Your task to perform on an android device: see sites visited before in the chrome app Image 0: 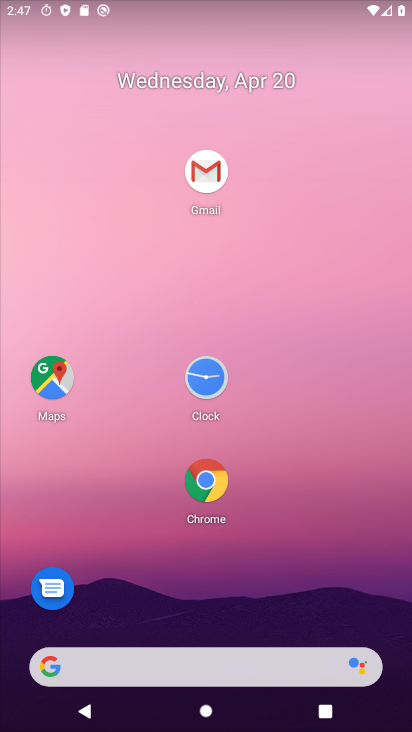
Step 0: drag from (280, 628) to (263, 186)
Your task to perform on an android device: see sites visited before in the chrome app Image 1: 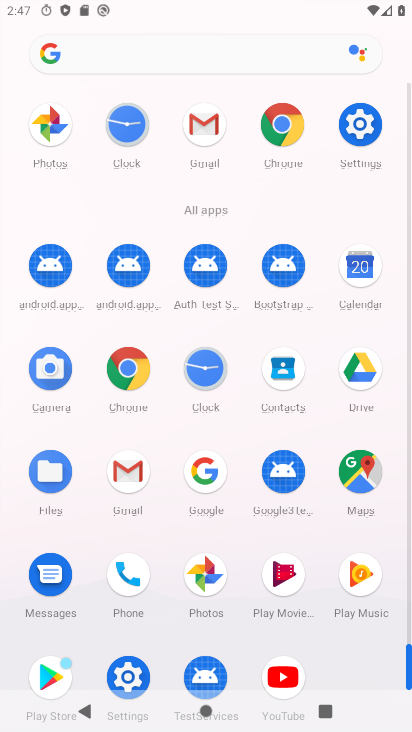
Step 1: click (267, 138)
Your task to perform on an android device: see sites visited before in the chrome app Image 2: 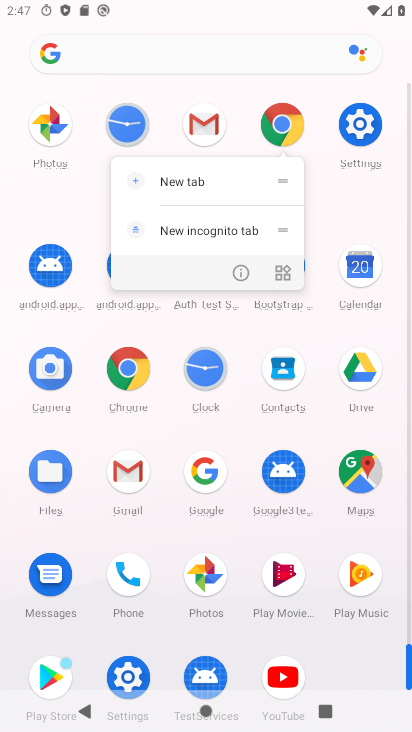
Step 2: click (275, 136)
Your task to perform on an android device: see sites visited before in the chrome app Image 3: 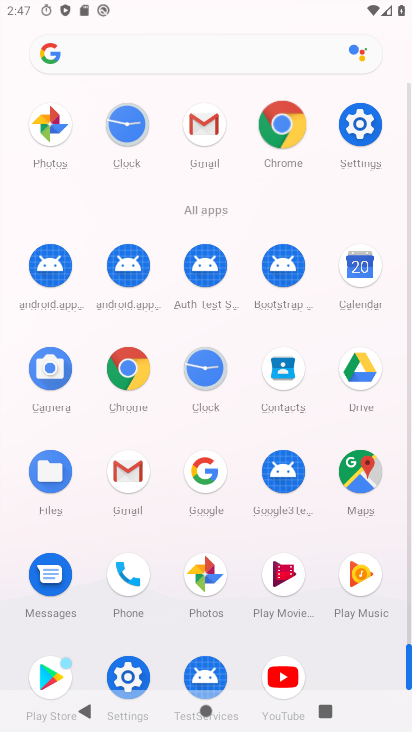
Step 3: click (276, 136)
Your task to perform on an android device: see sites visited before in the chrome app Image 4: 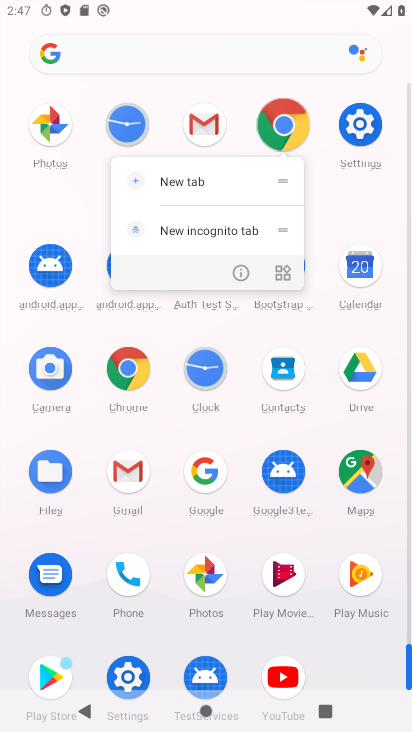
Step 4: click (284, 137)
Your task to perform on an android device: see sites visited before in the chrome app Image 5: 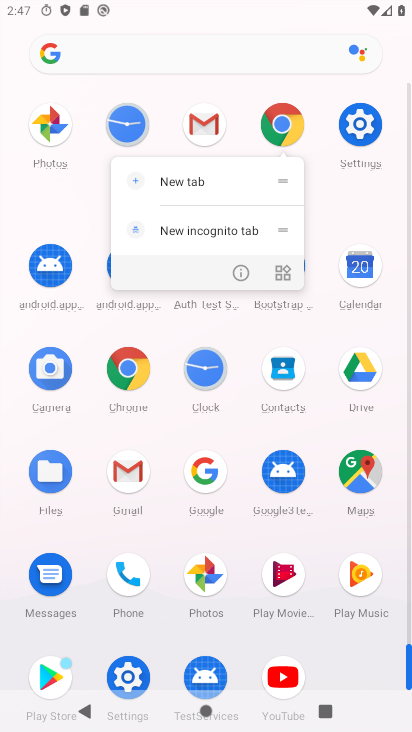
Step 5: click (284, 137)
Your task to perform on an android device: see sites visited before in the chrome app Image 6: 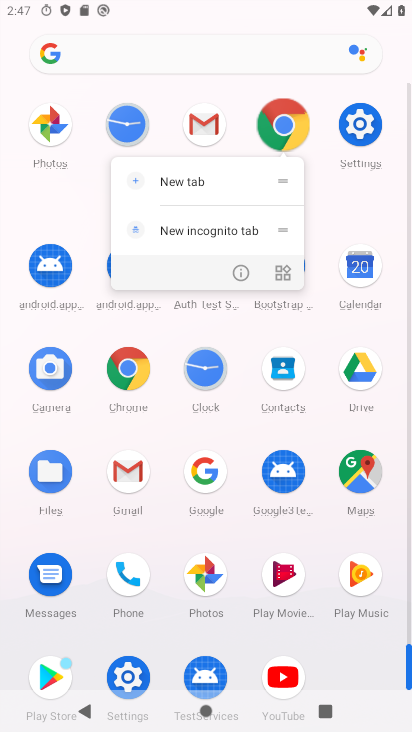
Step 6: click (284, 137)
Your task to perform on an android device: see sites visited before in the chrome app Image 7: 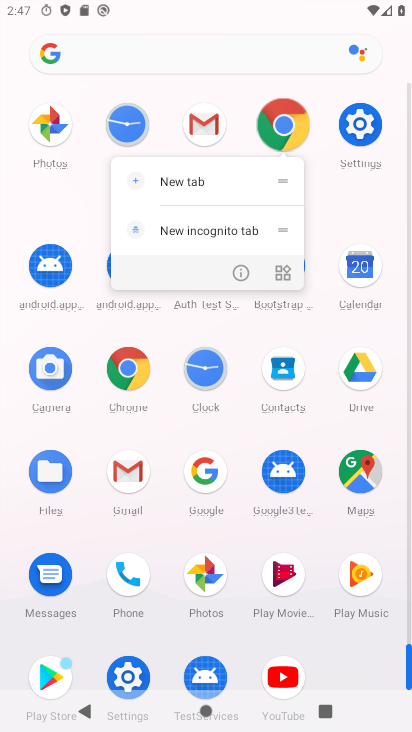
Step 7: click (257, 112)
Your task to perform on an android device: see sites visited before in the chrome app Image 8: 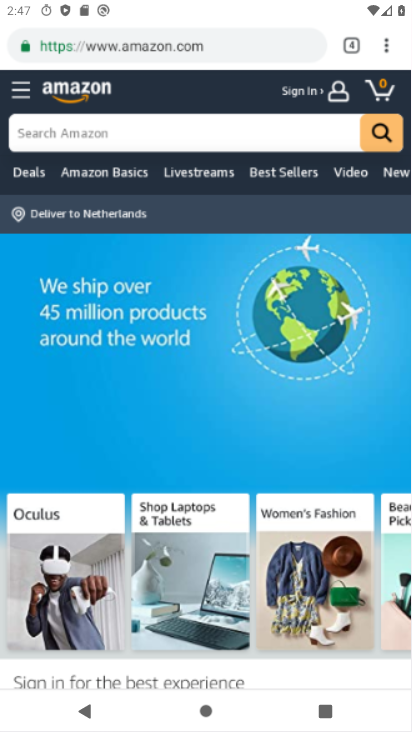
Step 8: click (193, 178)
Your task to perform on an android device: see sites visited before in the chrome app Image 9: 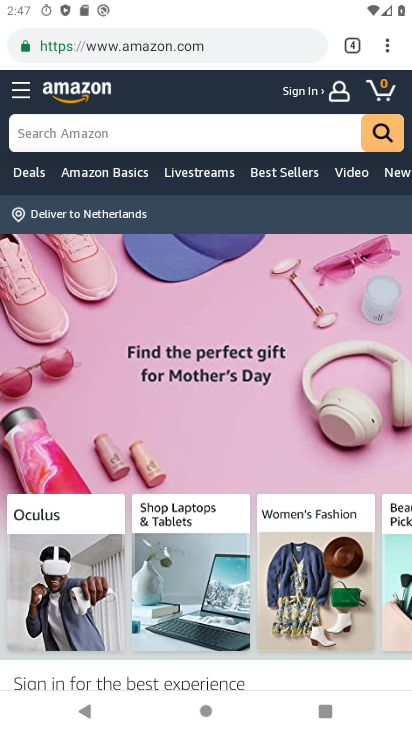
Step 9: drag from (386, 42) to (234, 208)
Your task to perform on an android device: see sites visited before in the chrome app Image 10: 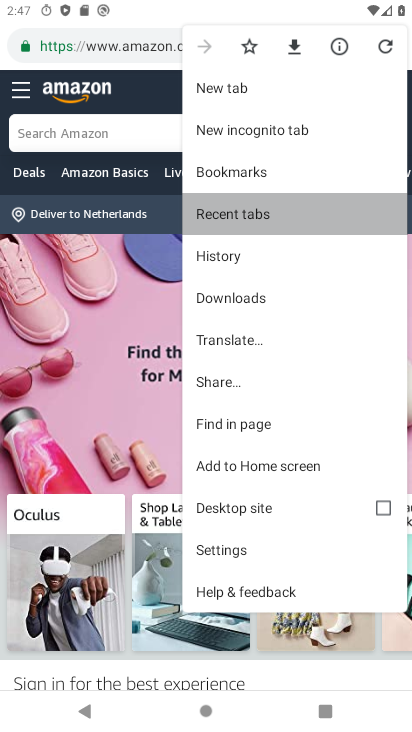
Step 10: click (234, 203)
Your task to perform on an android device: see sites visited before in the chrome app Image 11: 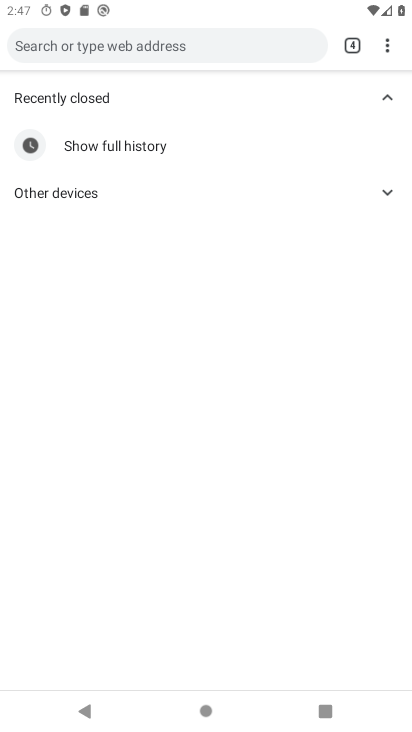
Step 11: task complete